Your task to perform on an android device: Go to Wikipedia Image 0: 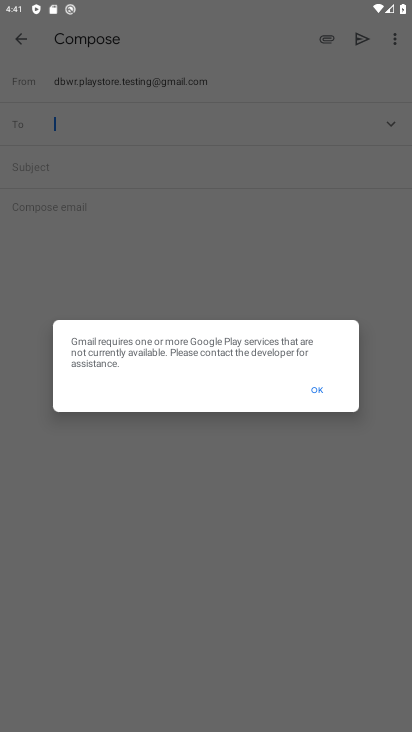
Step 0: press back button
Your task to perform on an android device: Go to Wikipedia Image 1: 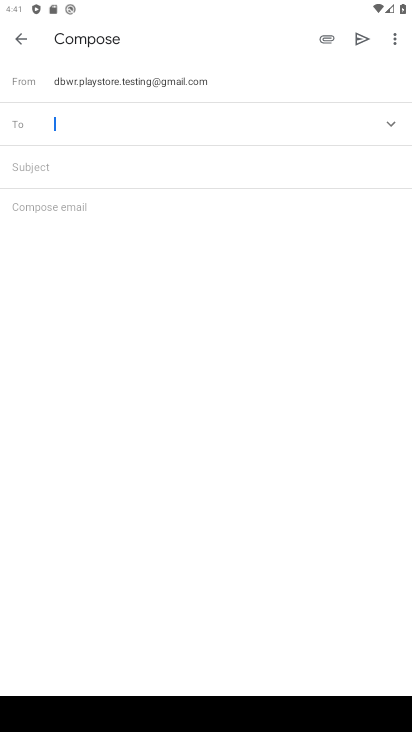
Step 1: press back button
Your task to perform on an android device: Go to Wikipedia Image 2: 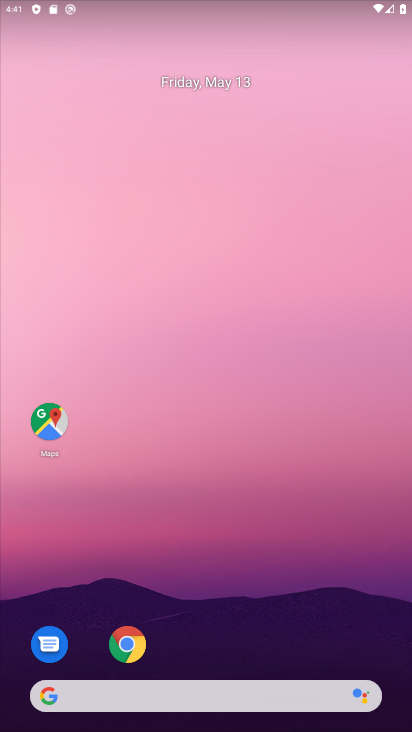
Step 2: click (114, 647)
Your task to perform on an android device: Go to Wikipedia Image 3: 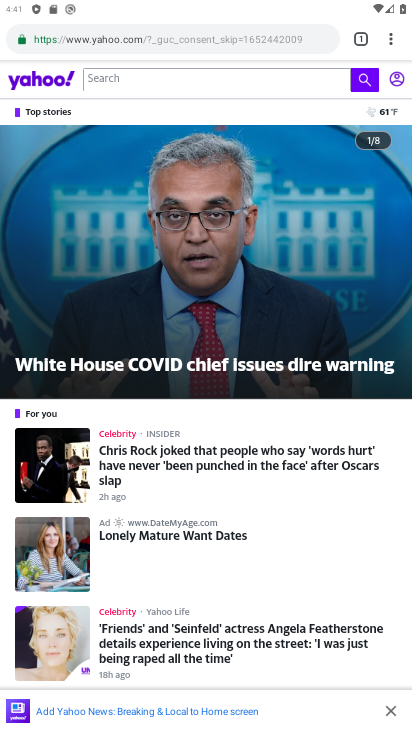
Step 3: click (359, 37)
Your task to perform on an android device: Go to Wikipedia Image 4: 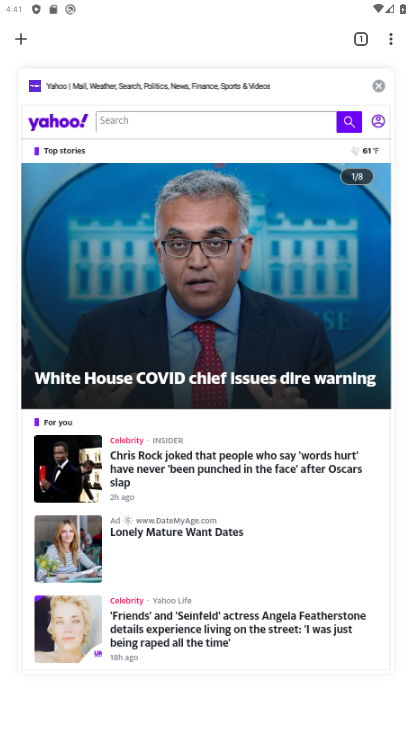
Step 4: click (19, 33)
Your task to perform on an android device: Go to Wikipedia Image 5: 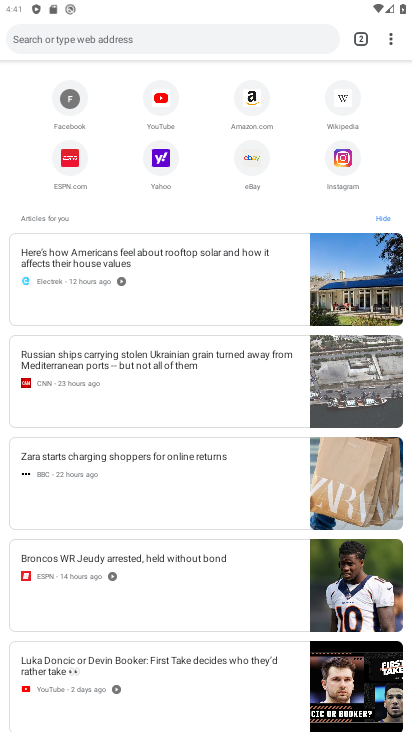
Step 5: click (339, 101)
Your task to perform on an android device: Go to Wikipedia Image 6: 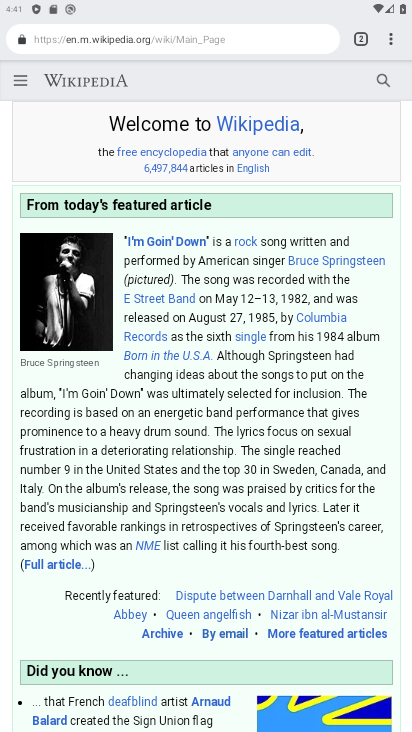
Step 6: task complete